Your task to perform on an android device: turn on bluetooth scan Image 0: 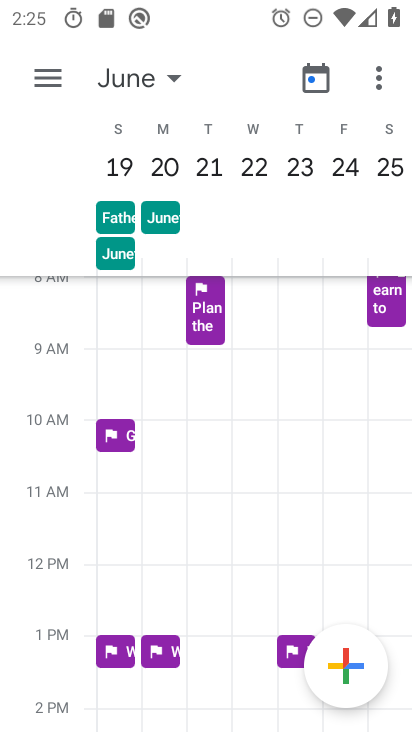
Step 0: press home button
Your task to perform on an android device: turn on bluetooth scan Image 1: 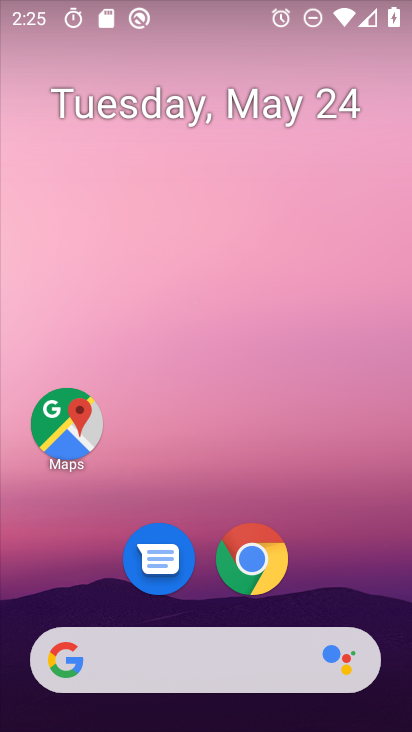
Step 1: drag from (378, 510) to (356, 156)
Your task to perform on an android device: turn on bluetooth scan Image 2: 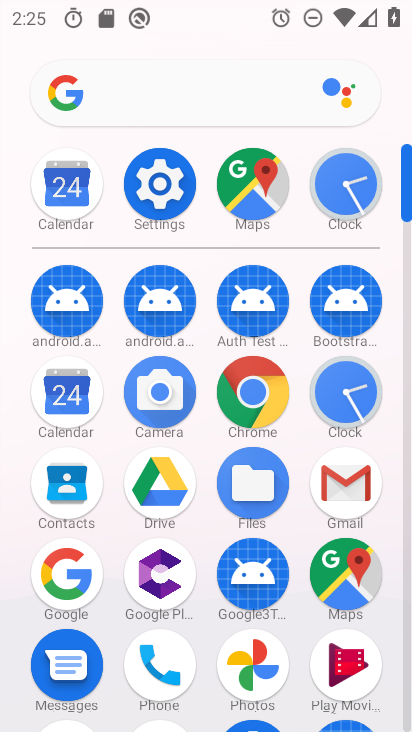
Step 2: click (145, 182)
Your task to perform on an android device: turn on bluetooth scan Image 3: 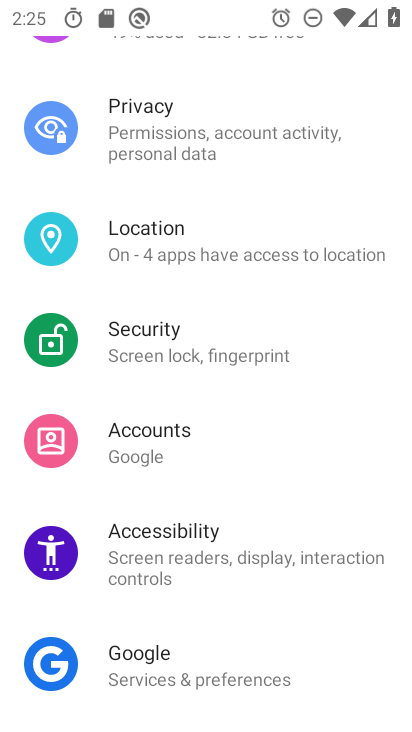
Step 3: click (148, 214)
Your task to perform on an android device: turn on bluetooth scan Image 4: 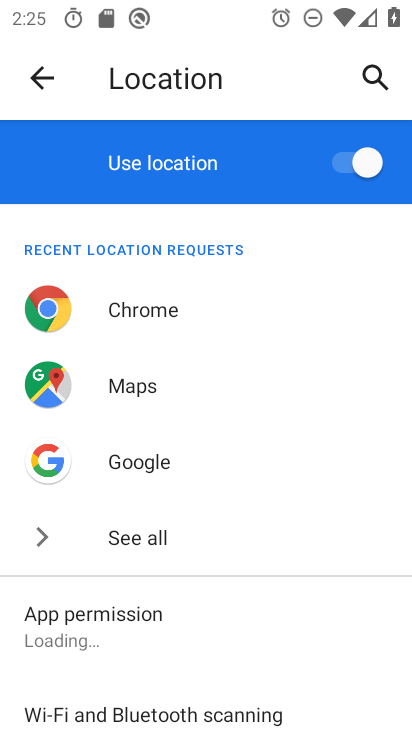
Step 4: drag from (279, 688) to (274, 439)
Your task to perform on an android device: turn on bluetooth scan Image 5: 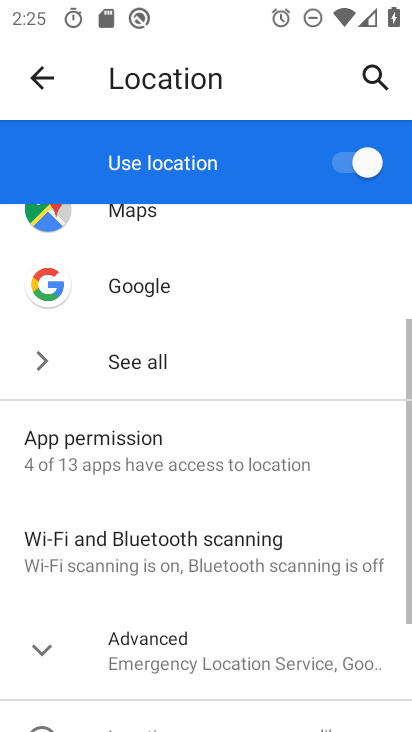
Step 5: click (233, 558)
Your task to perform on an android device: turn on bluetooth scan Image 6: 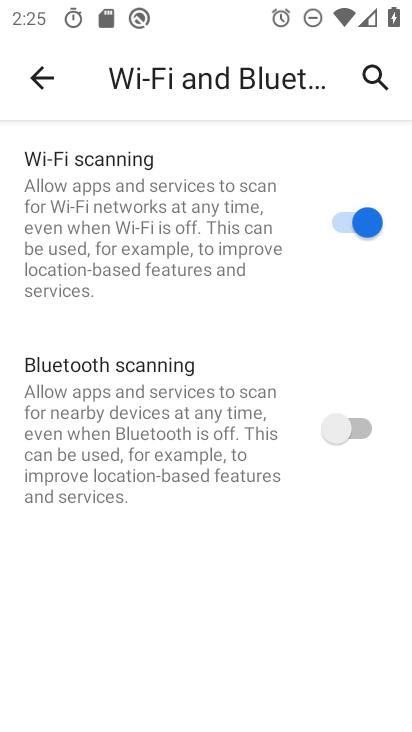
Step 6: click (369, 433)
Your task to perform on an android device: turn on bluetooth scan Image 7: 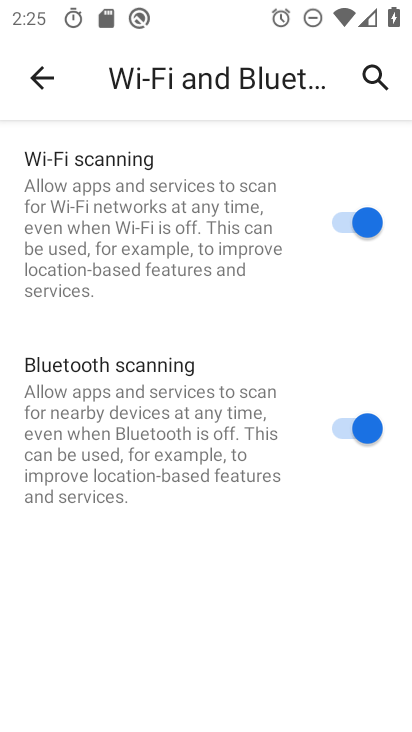
Step 7: task complete